Your task to perform on an android device: Go to display settings Image 0: 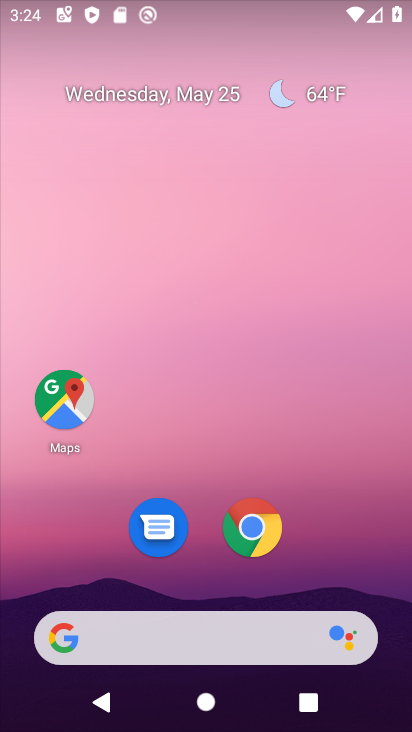
Step 0: drag from (186, 556) to (267, 9)
Your task to perform on an android device: Go to display settings Image 1: 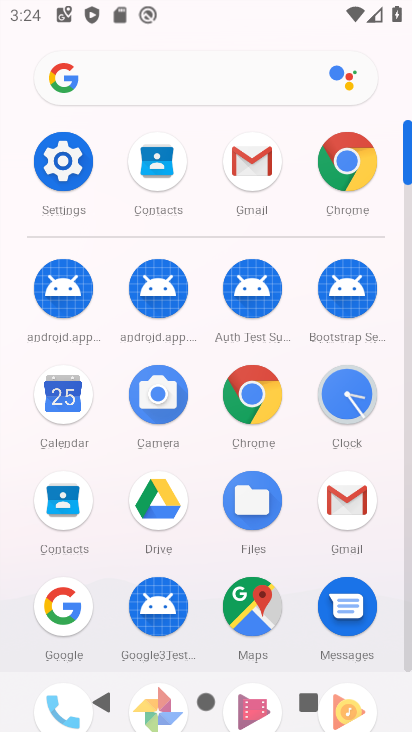
Step 1: click (52, 158)
Your task to perform on an android device: Go to display settings Image 2: 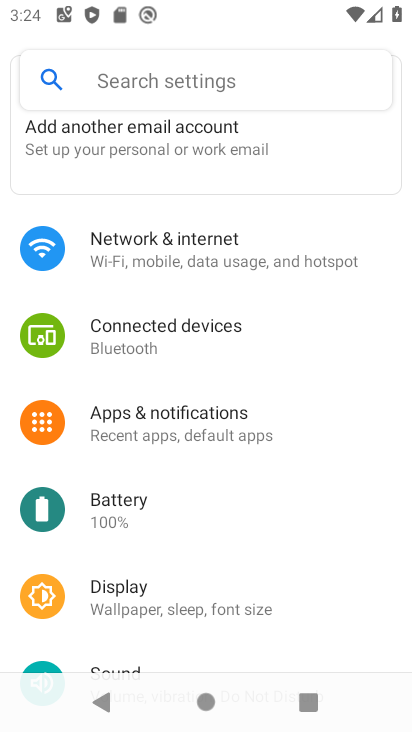
Step 2: click (155, 579)
Your task to perform on an android device: Go to display settings Image 3: 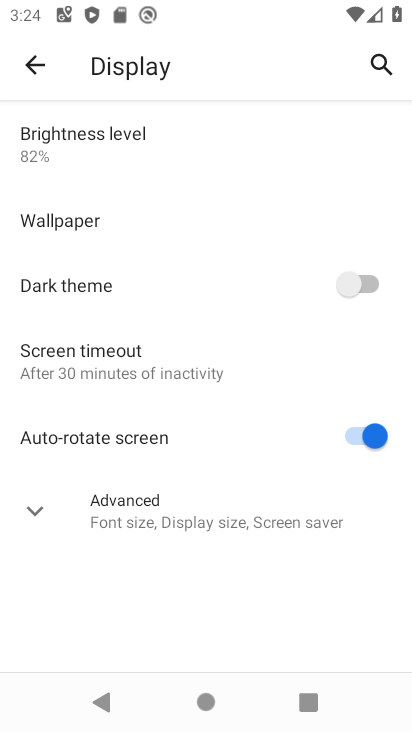
Step 3: task complete